Your task to perform on an android device: search for starred emails in the gmail app Image 0: 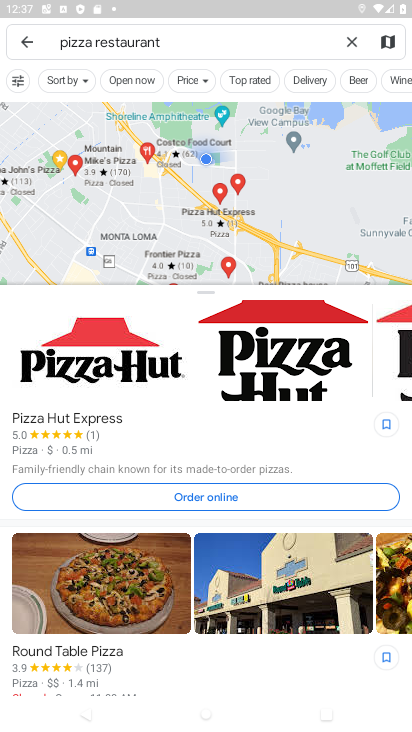
Step 0: task complete